Your task to perform on an android device: Go to notification settings Image 0: 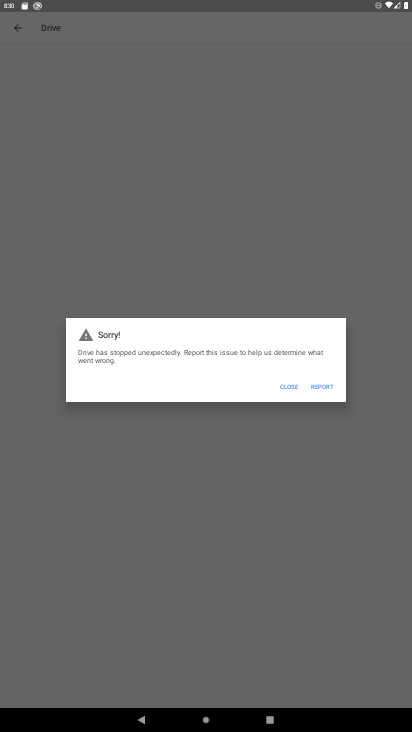
Step 0: press home button
Your task to perform on an android device: Go to notification settings Image 1: 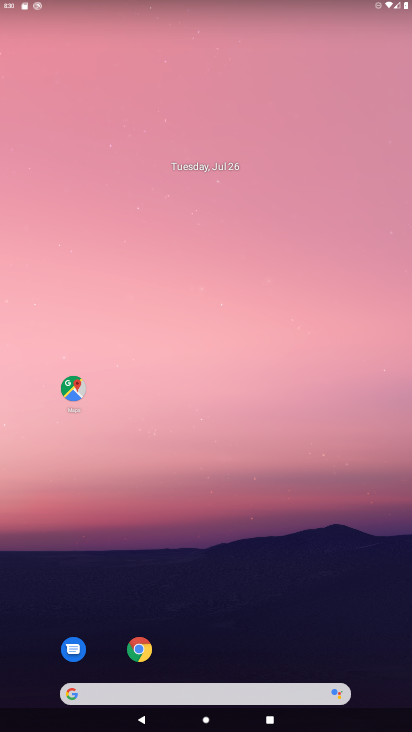
Step 1: click (184, 21)
Your task to perform on an android device: Go to notification settings Image 2: 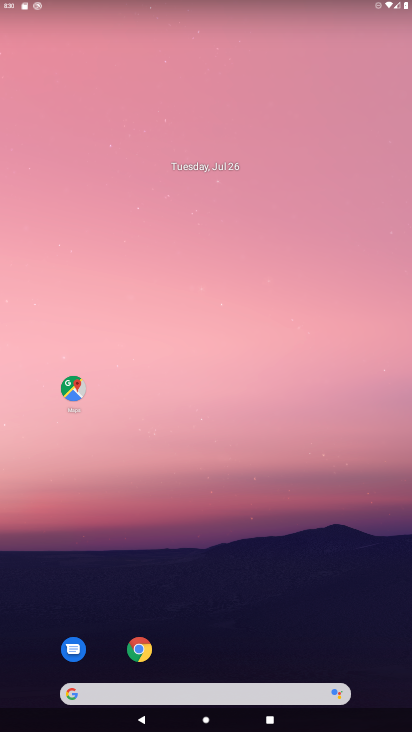
Step 2: drag from (365, 380) to (191, 18)
Your task to perform on an android device: Go to notification settings Image 3: 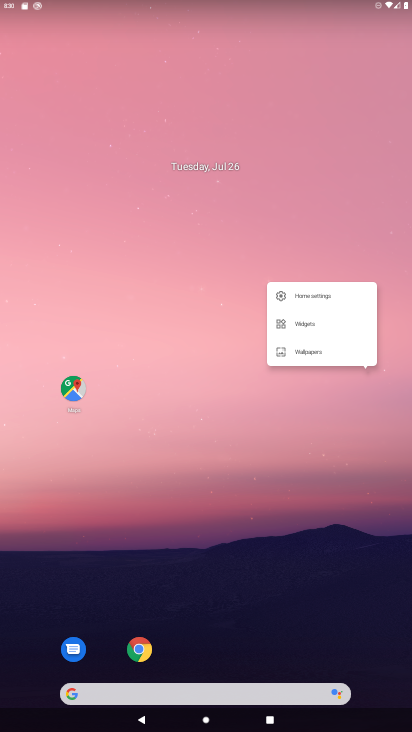
Step 3: drag from (173, 402) to (183, 82)
Your task to perform on an android device: Go to notification settings Image 4: 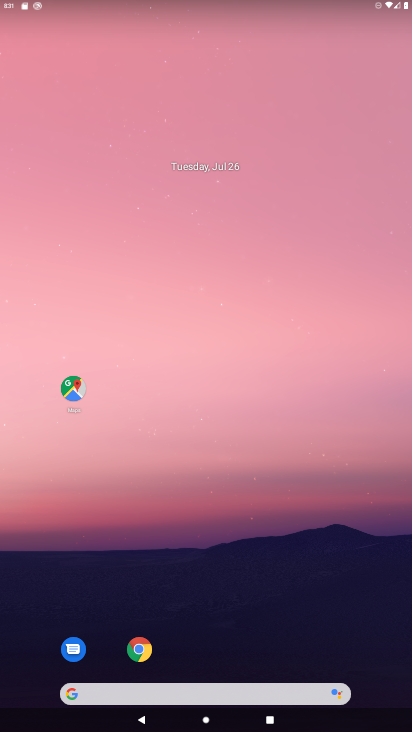
Step 4: drag from (220, 671) to (230, 113)
Your task to perform on an android device: Go to notification settings Image 5: 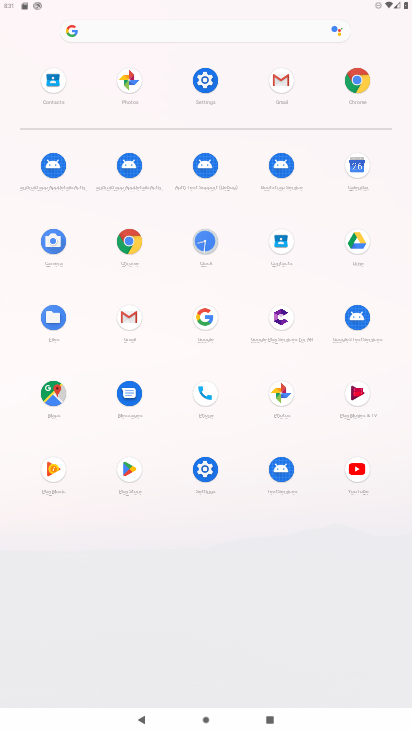
Step 5: click (205, 80)
Your task to perform on an android device: Go to notification settings Image 6: 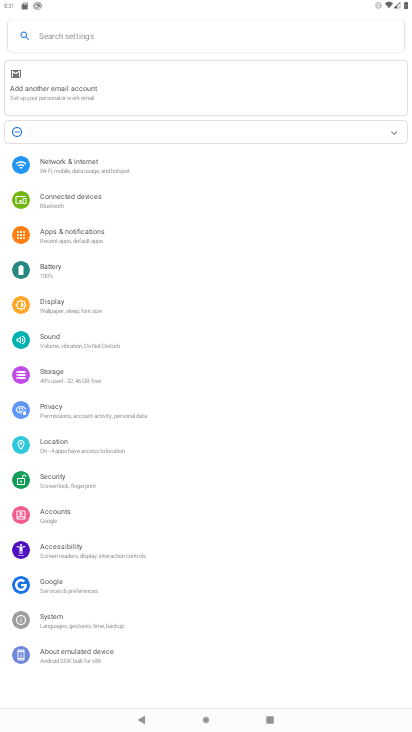
Step 6: click (64, 229)
Your task to perform on an android device: Go to notification settings Image 7: 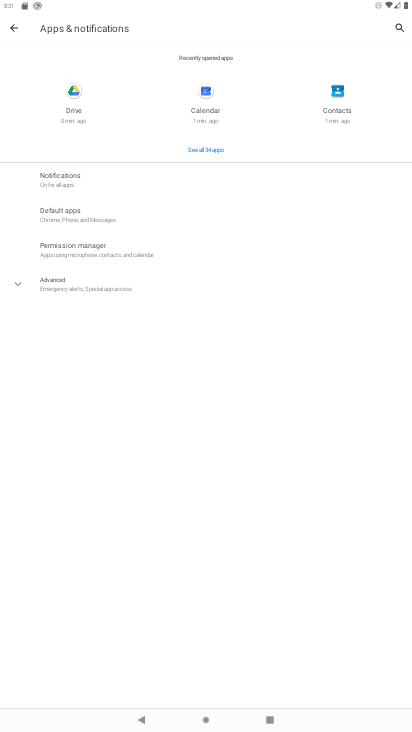
Step 7: task complete